Your task to perform on an android device: Open notification settings Image 0: 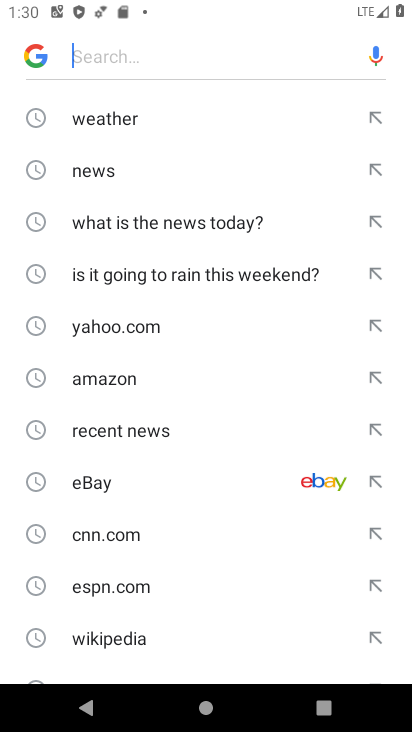
Step 0: press home button
Your task to perform on an android device: Open notification settings Image 1: 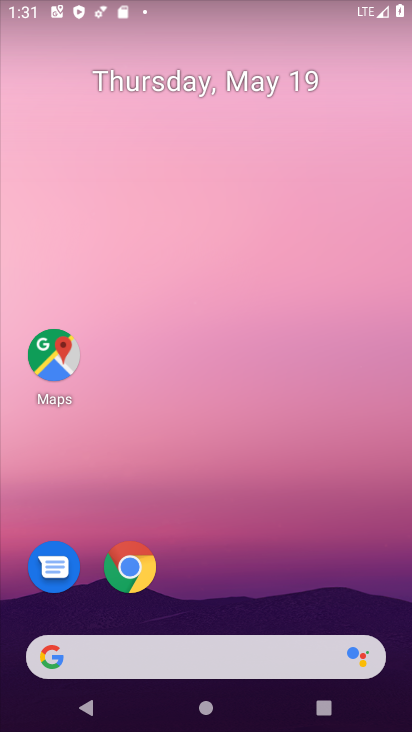
Step 1: drag from (60, 573) to (284, 195)
Your task to perform on an android device: Open notification settings Image 2: 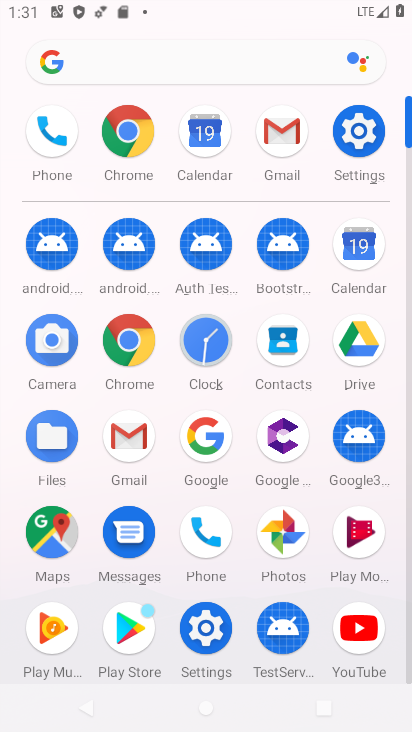
Step 2: click (377, 137)
Your task to perform on an android device: Open notification settings Image 3: 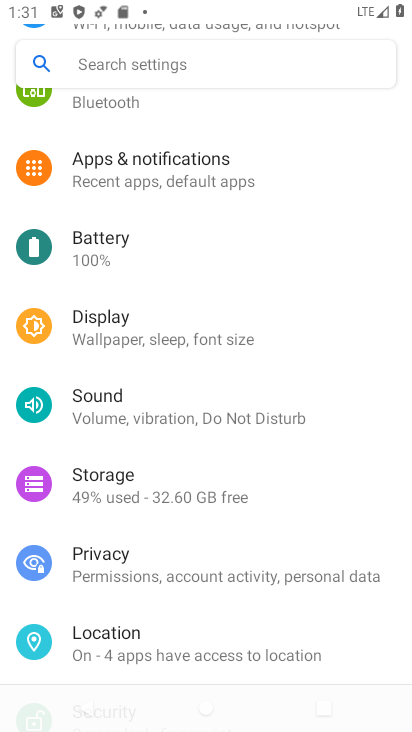
Step 3: click (212, 182)
Your task to perform on an android device: Open notification settings Image 4: 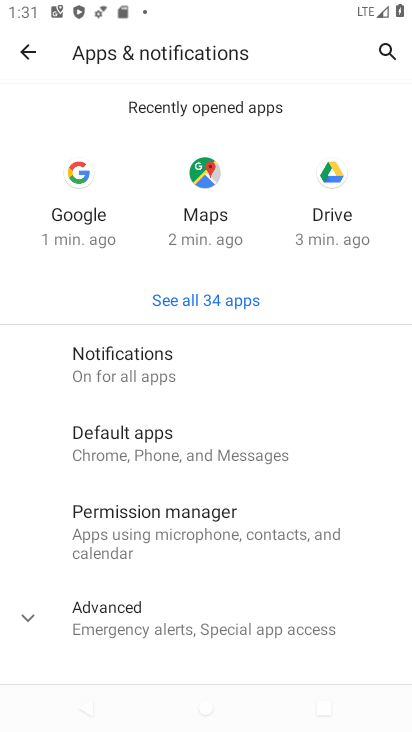
Step 4: task complete